Your task to perform on an android device: toggle sleep mode Image 0: 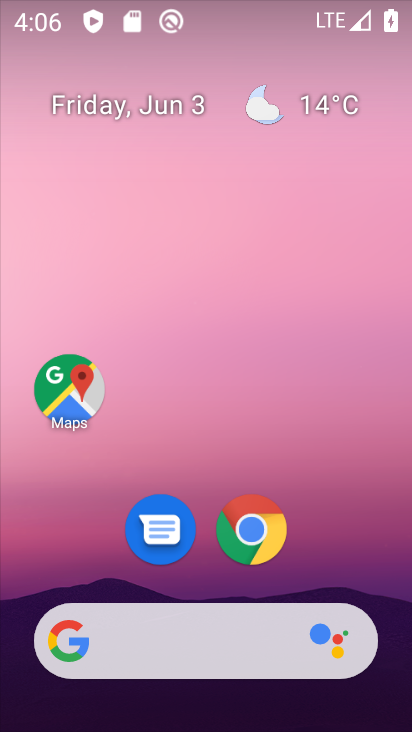
Step 0: drag from (200, 584) to (240, 157)
Your task to perform on an android device: toggle sleep mode Image 1: 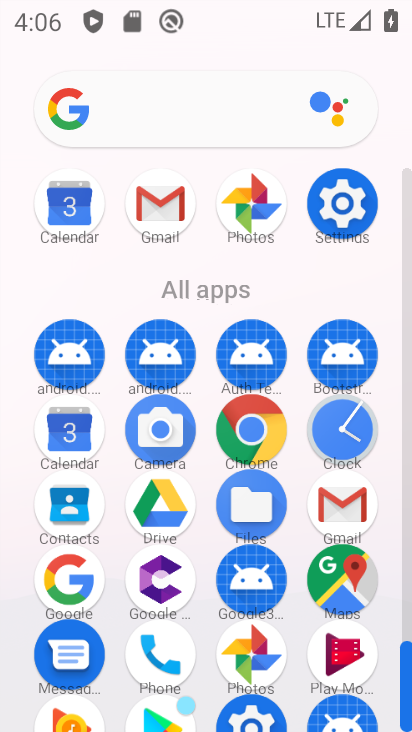
Step 1: click (343, 198)
Your task to perform on an android device: toggle sleep mode Image 2: 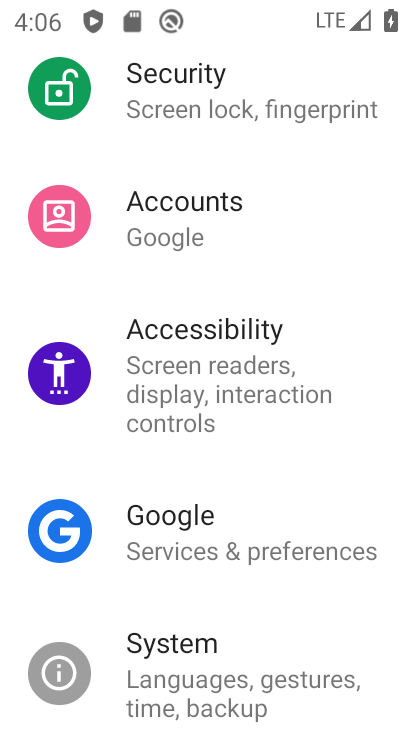
Step 2: drag from (137, 141) to (156, 679)
Your task to perform on an android device: toggle sleep mode Image 3: 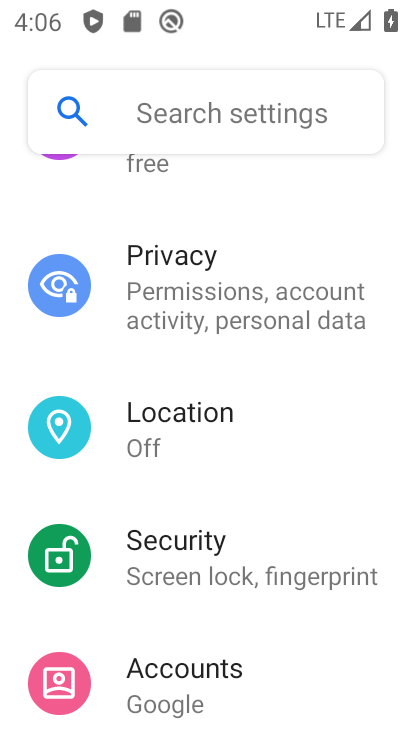
Step 3: drag from (180, 206) to (173, 723)
Your task to perform on an android device: toggle sleep mode Image 4: 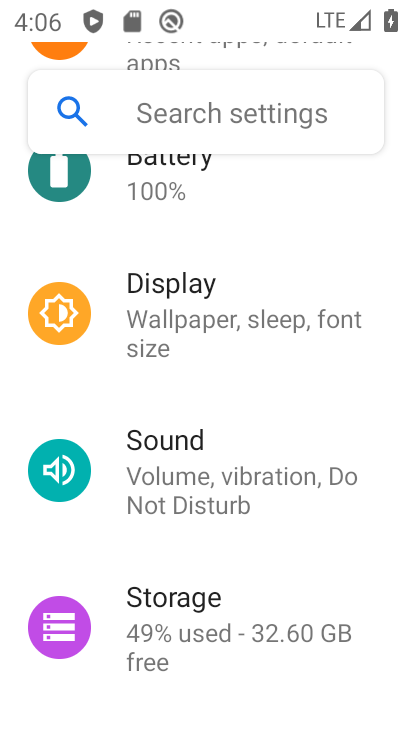
Step 4: click (109, 299)
Your task to perform on an android device: toggle sleep mode Image 5: 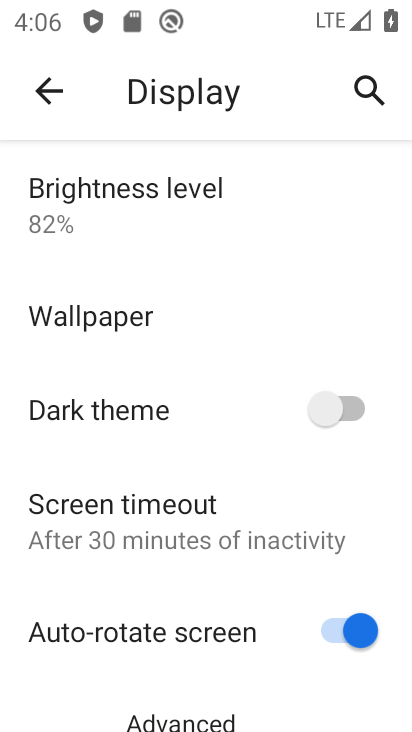
Step 5: task complete